Your task to perform on an android device: Search for vegetarian restaurants on Maps Image 0: 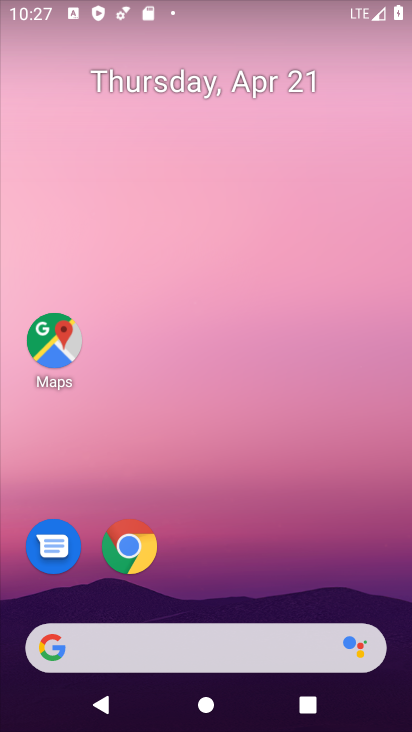
Step 0: click (56, 338)
Your task to perform on an android device: Search for vegetarian restaurants on Maps Image 1: 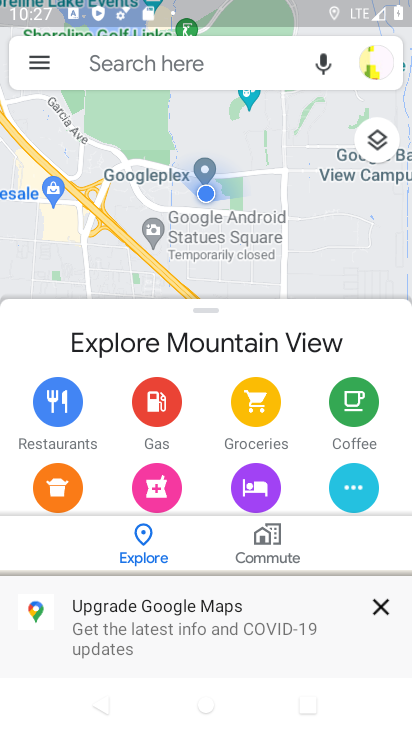
Step 1: click (130, 55)
Your task to perform on an android device: Search for vegetarian restaurants on Maps Image 2: 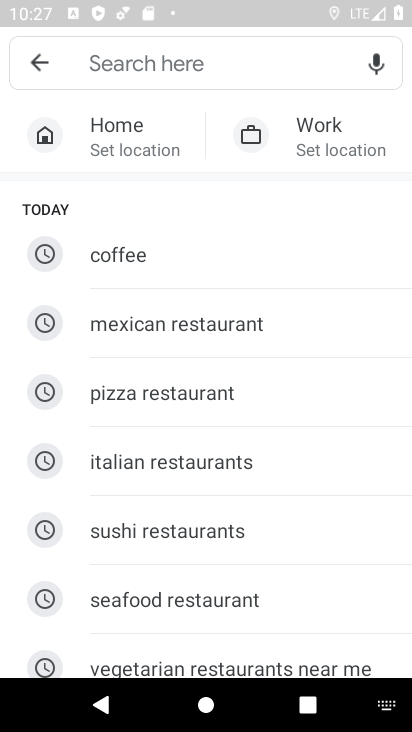
Step 2: type "vegetarian restaurants"
Your task to perform on an android device: Search for vegetarian restaurants on Maps Image 3: 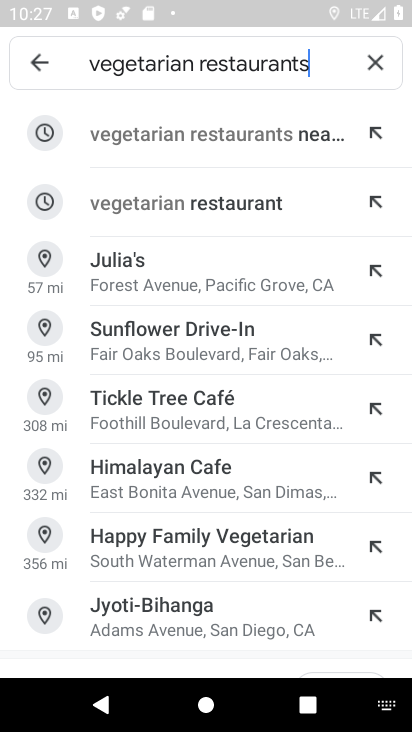
Step 3: click (210, 202)
Your task to perform on an android device: Search for vegetarian restaurants on Maps Image 4: 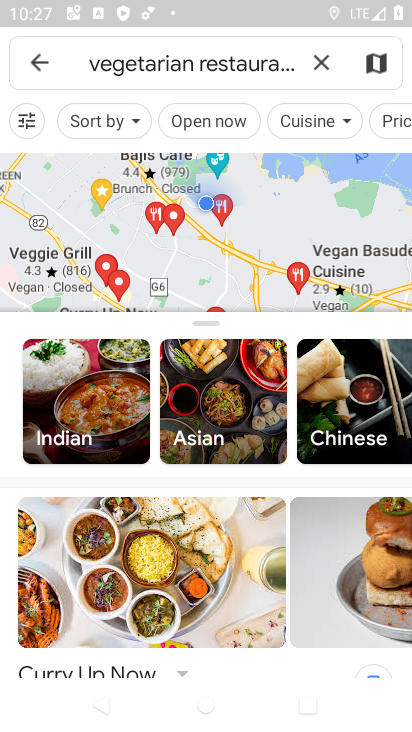
Step 4: task complete